Your task to perform on an android device: toggle priority inbox in the gmail app Image 0: 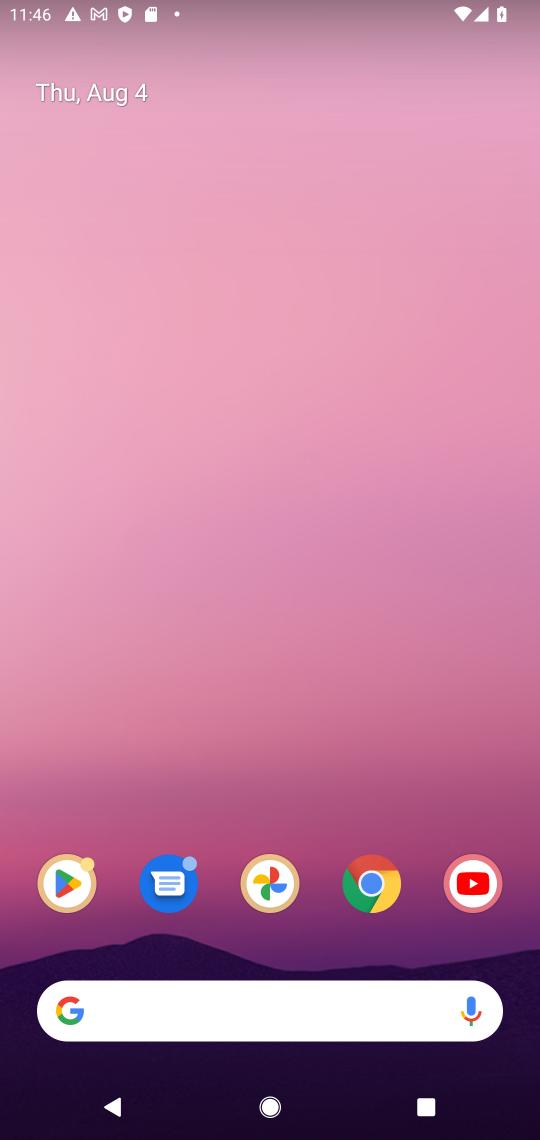
Step 0: drag from (264, 933) to (271, 404)
Your task to perform on an android device: toggle priority inbox in the gmail app Image 1: 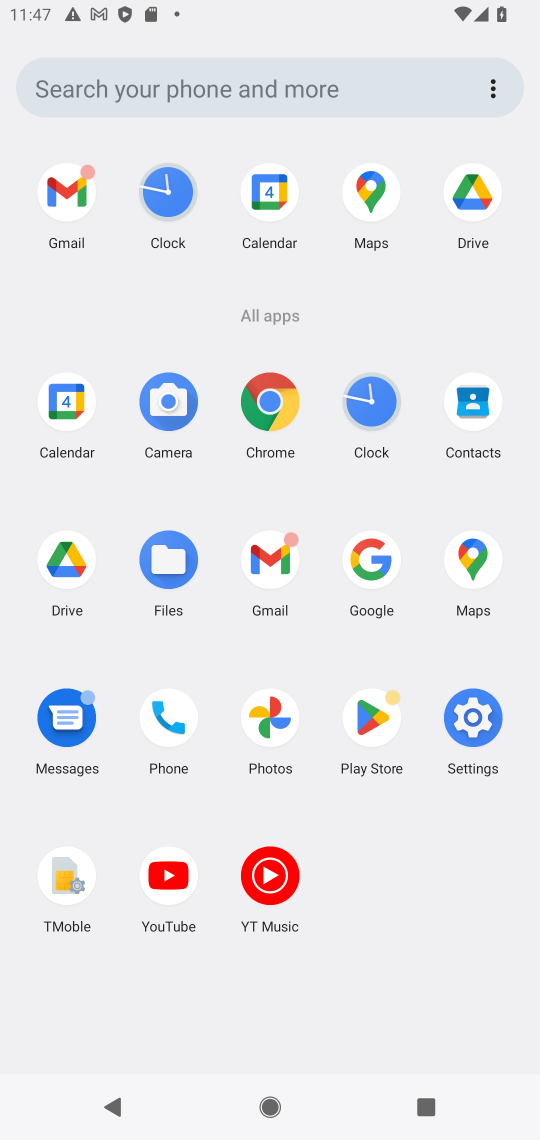
Step 1: click (263, 578)
Your task to perform on an android device: toggle priority inbox in the gmail app Image 2: 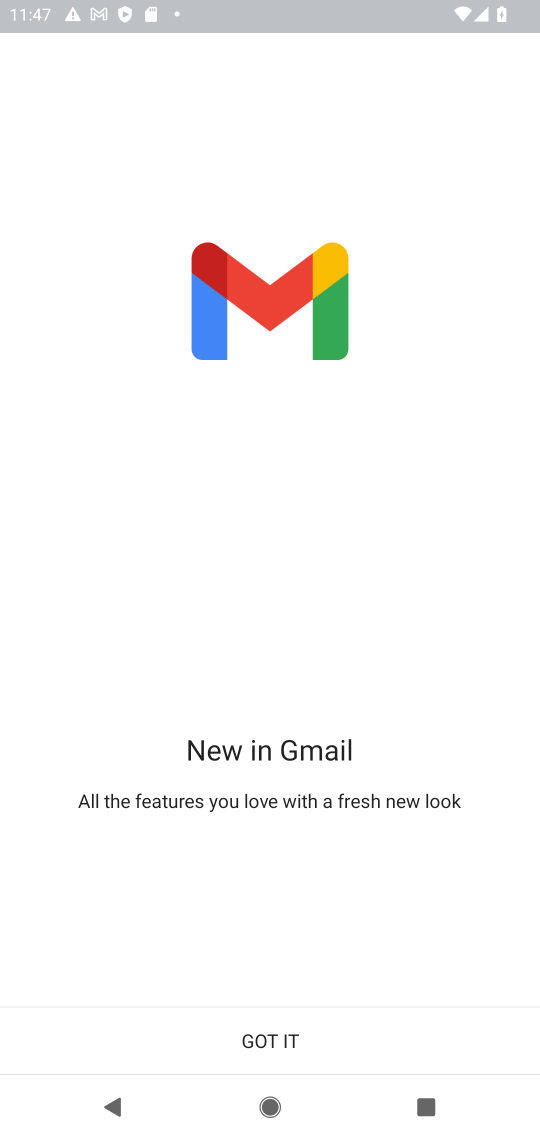
Step 2: click (244, 1043)
Your task to perform on an android device: toggle priority inbox in the gmail app Image 3: 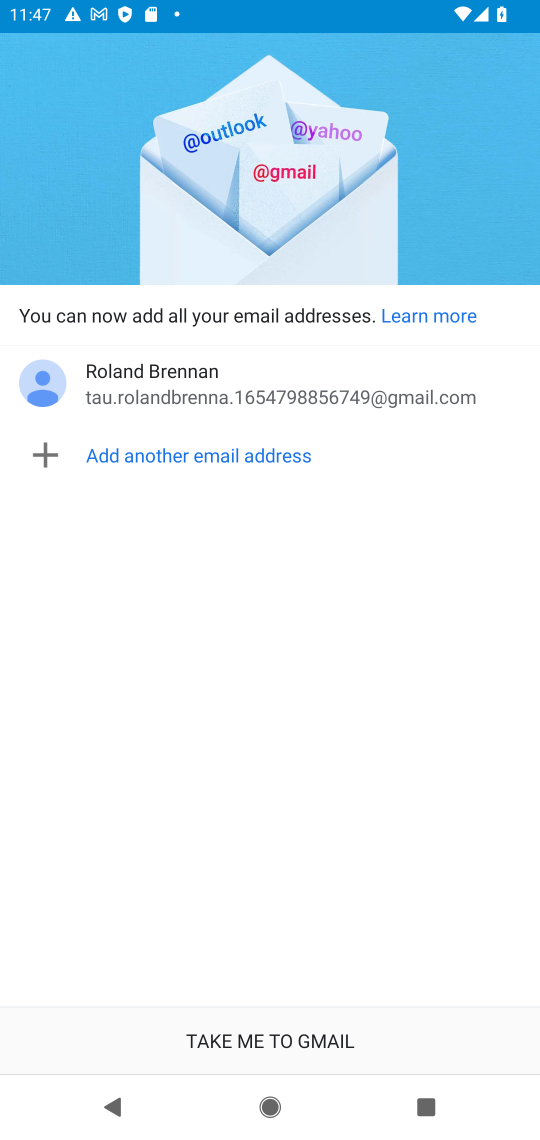
Step 3: click (234, 1044)
Your task to perform on an android device: toggle priority inbox in the gmail app Image 4: 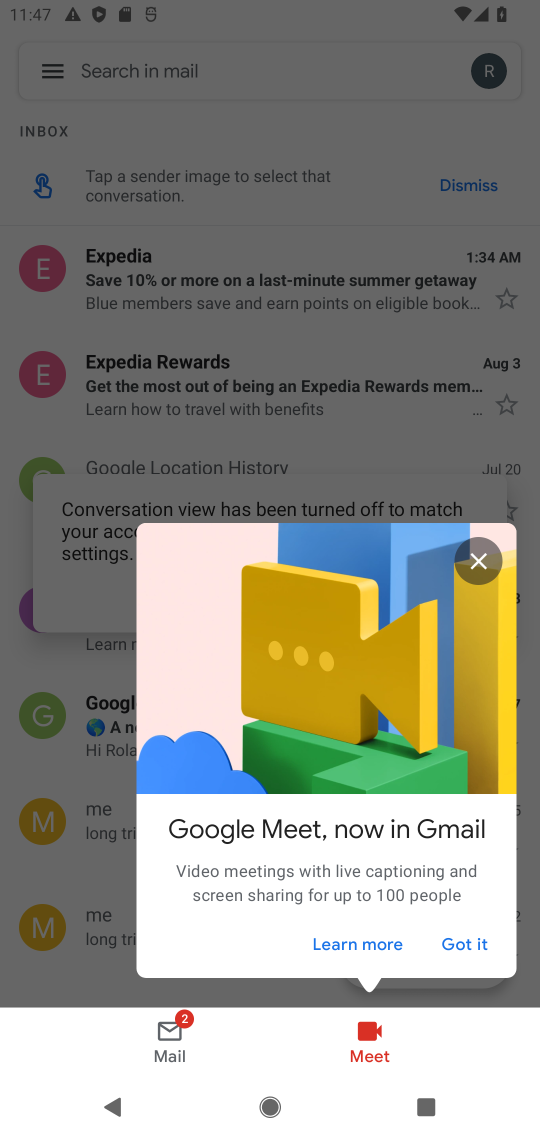
Step 4: click (467, 582)
Your task to perform on an android device: toggle priority inbox in the gmail app Image 5: 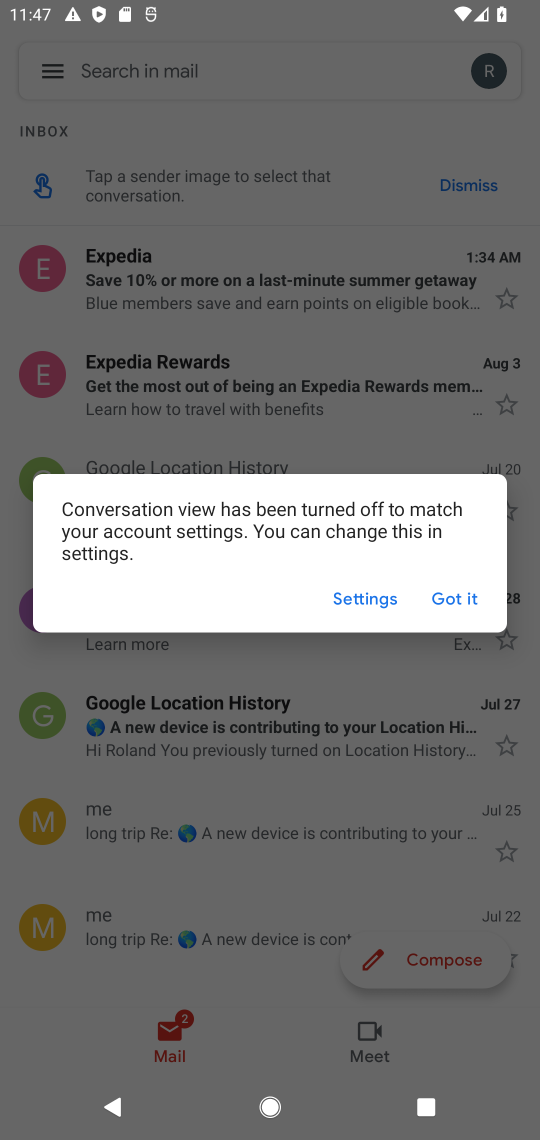
Step 5: click (427, 600)
Your task to perform on an android device: toggle priority inbox in the gmail app Image 6: 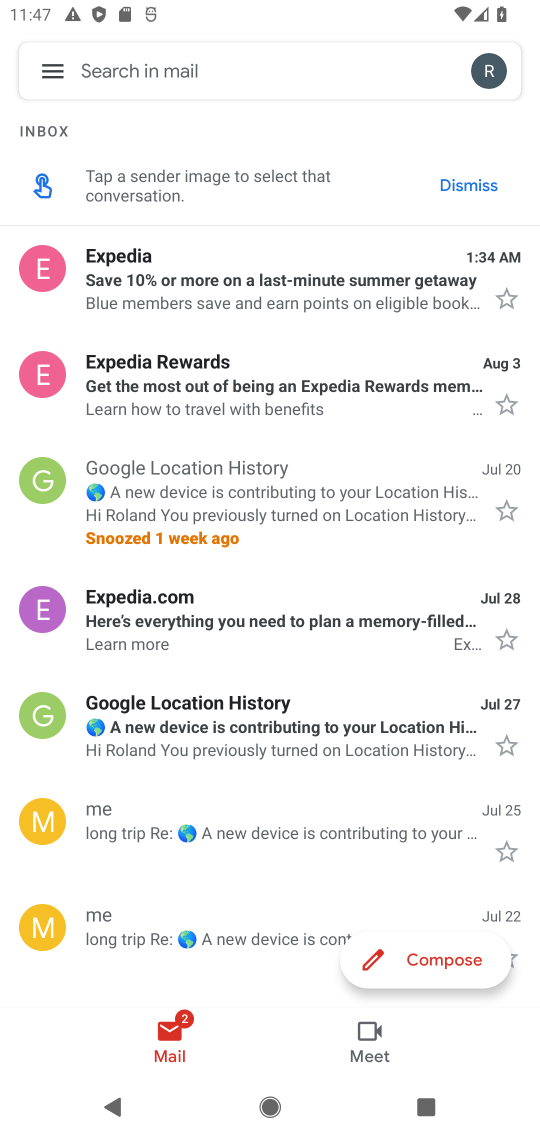
Step 6: click (39, 80)
Your task to perform on an android device: toggle priority inbox in the gmail app Image 7: 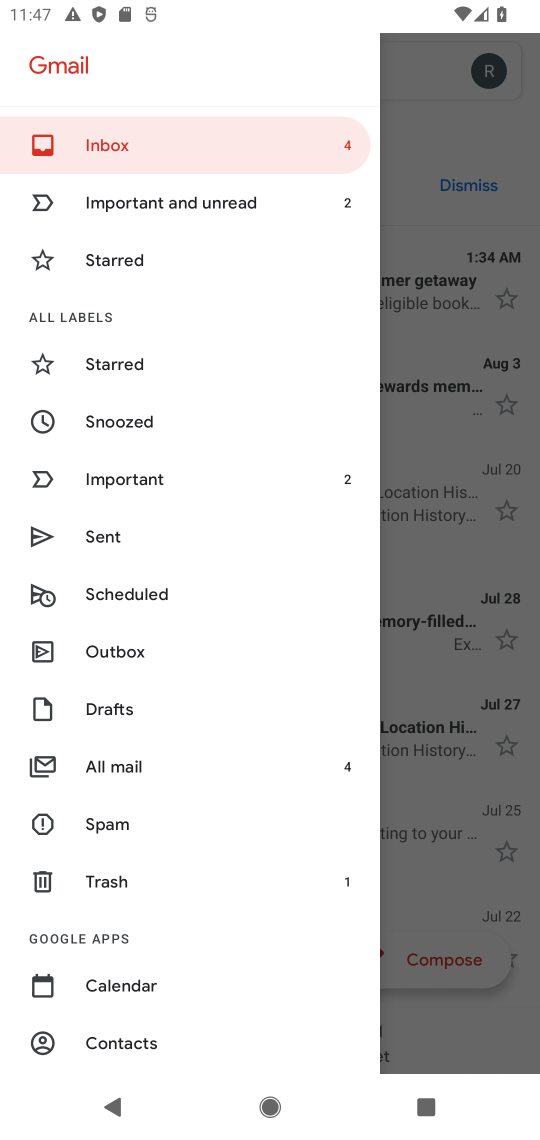
Step 7: drag from (191, 949) to (252, 164)
Your task to perform on an android device: toggle priority inbox in the gmail app Image 8: 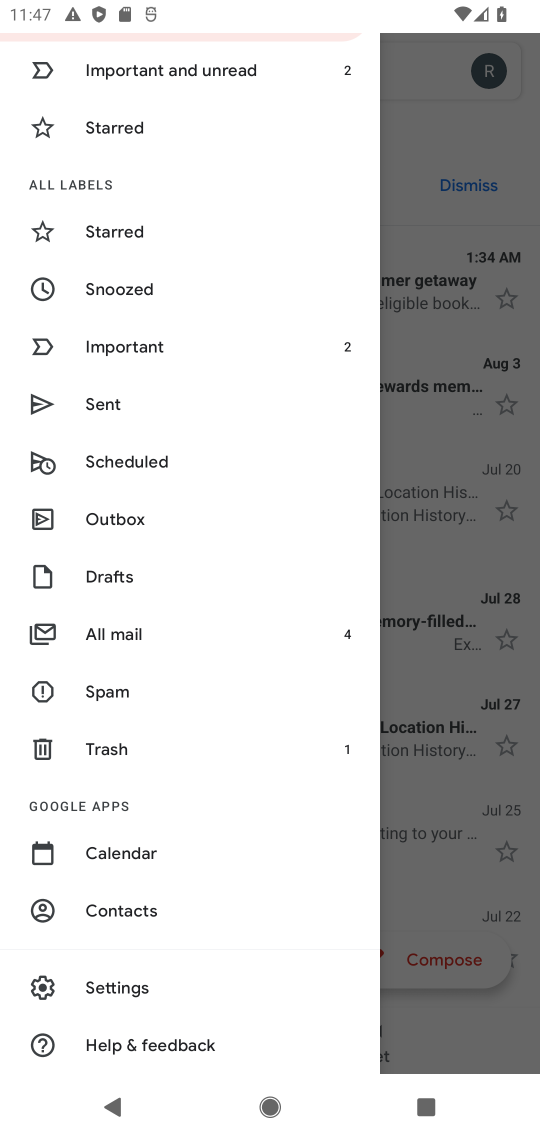
Step 8: click (110, 992)
Your task to perform on an android device: toggle priority inbox in the gmail app Image 9: 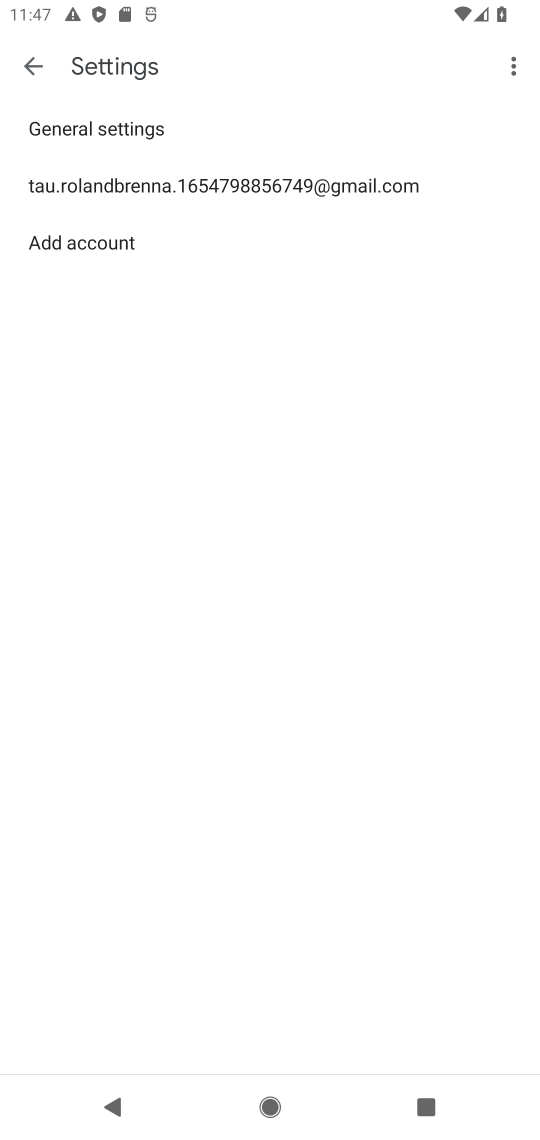
Step 9: click (275, 189)
Your task to perform on an android device: toggle priority inbox in the gmail app Image 10: 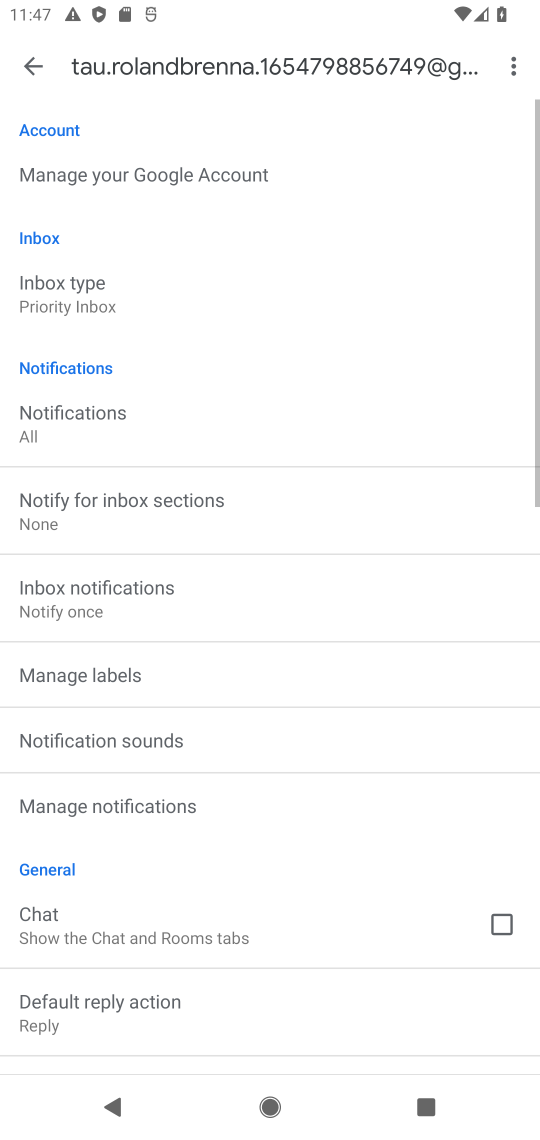
Step 10: drag from (228, 580) to (232, 259)
Your task to perform on an android device: toggle priority inbox in the gmail app Image 11: 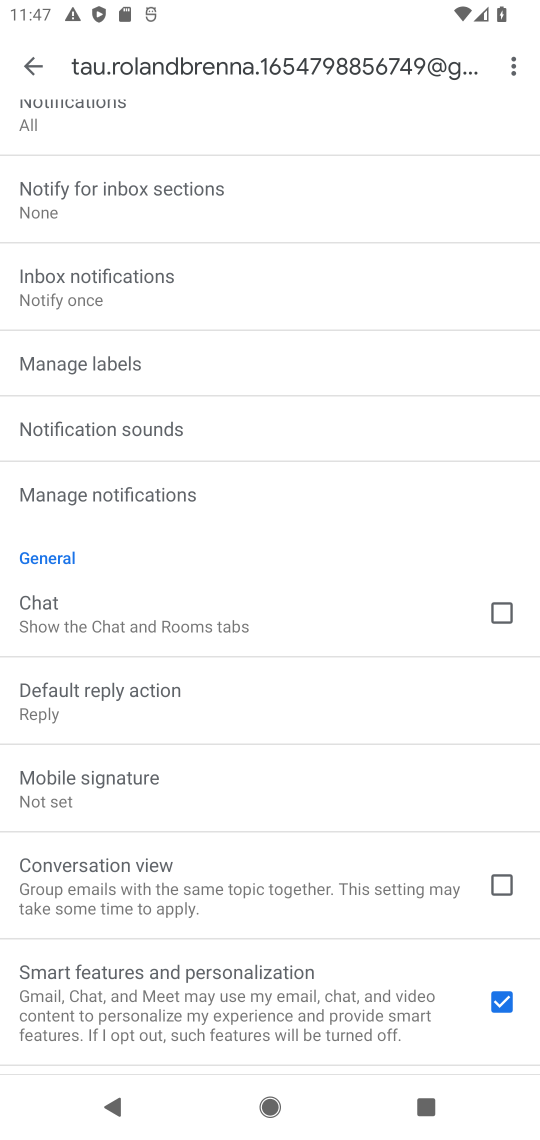
Step 11: drag from (162, 342) to (219, 1114)
Your task to perform on an android device: toggle priority inbox in the gmail app Image 12: 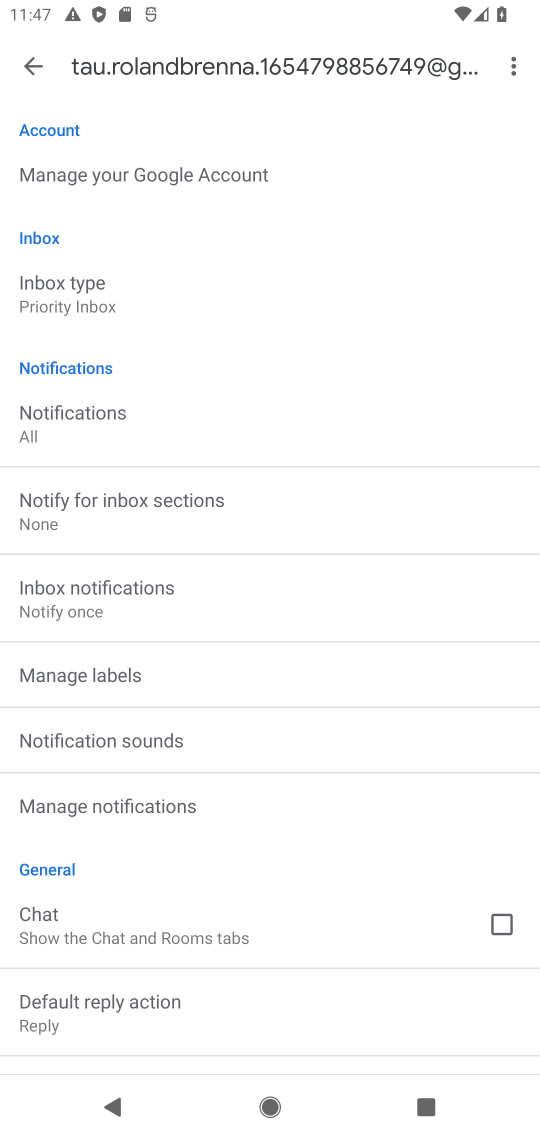
Step 12: click (50, 310)
Your task to perform on an android device: toggle priority inbox in the gmail app Image 13: 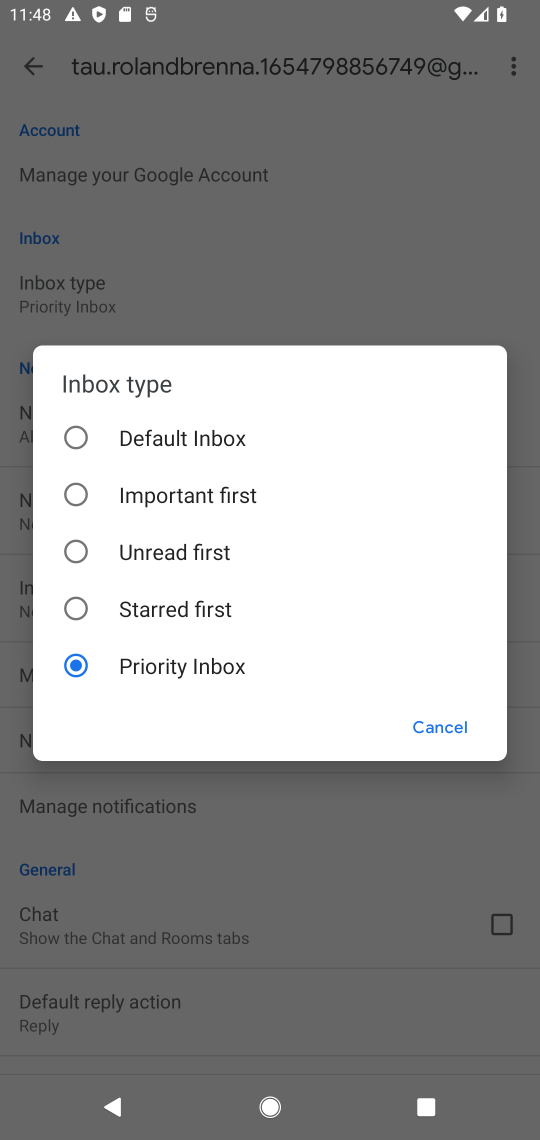
Step 13: click (132, 438)
Your task to perform on an android device: toggle priority inbox in the gmail app Image 14: 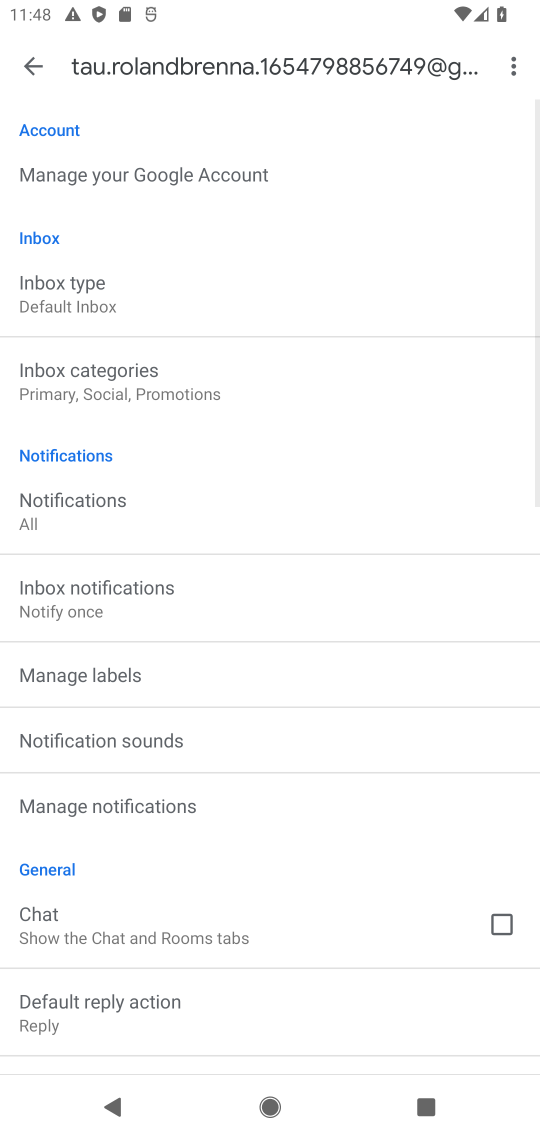
Step 14: task complete